Your task to perform on an android device: Go to Google Image 0: 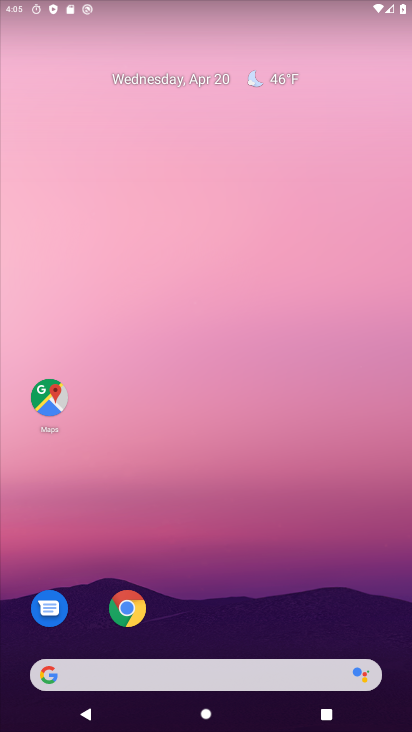
Step 0: click (133, 48)
Your task to perform on an android device: Go to Google Image 1: 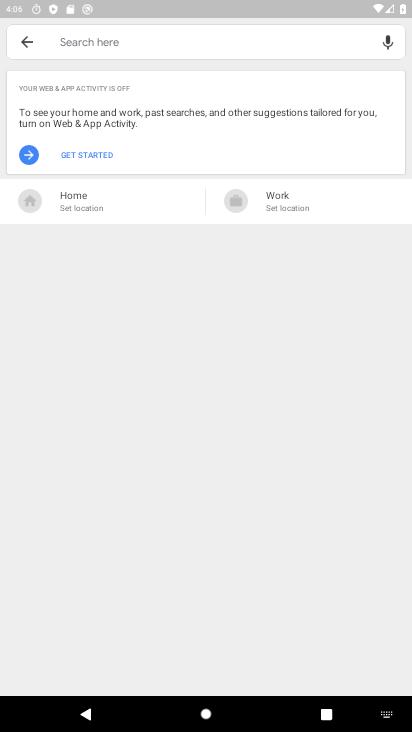
Step 1: press home button
Your task to perform on an android device: Go to Google Image 2: 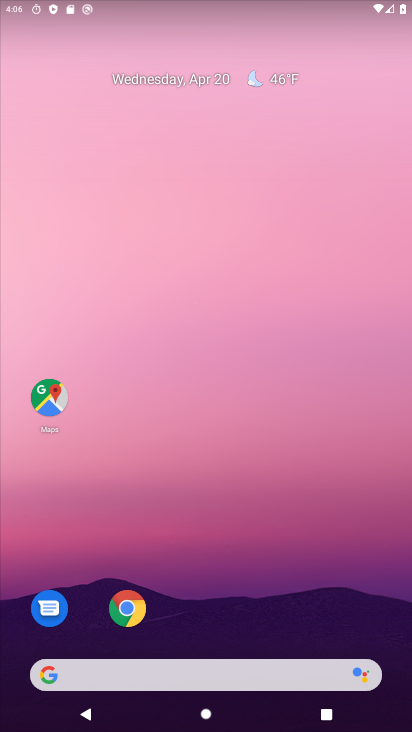
Step 2: drag from (231, 655) to (117, 14)
Your task to perform on an android device: Go to Google Image 3: 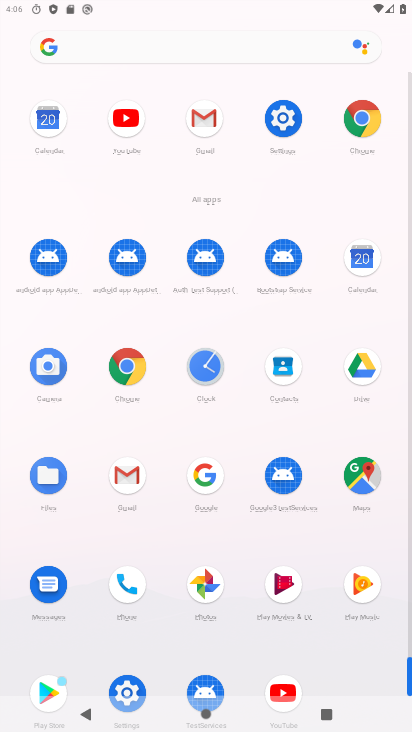
Step 3: click (214, 472)
Your task to perform on an android device: Go to Google Image 4: 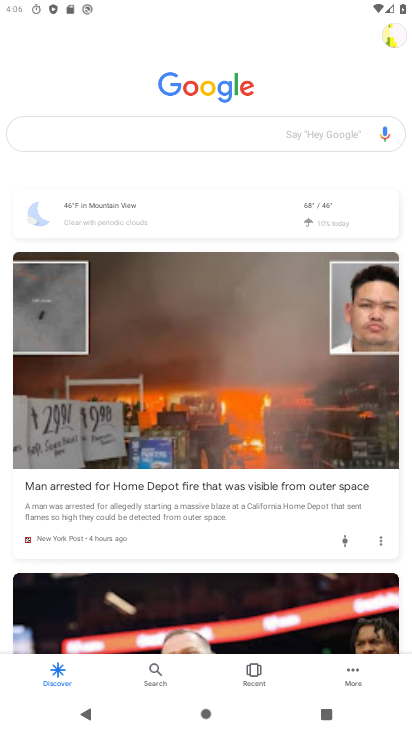
Step 4: task complete